Your task to perform on an android device: turn off data saver in the chrome app Image 0: 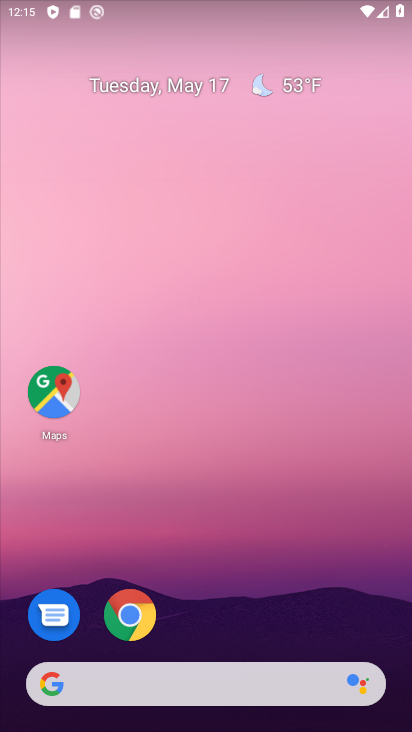
Step 0: click (128, 607)
Your task to perform on an android device: turn off data saver in the chrome app Image 1: 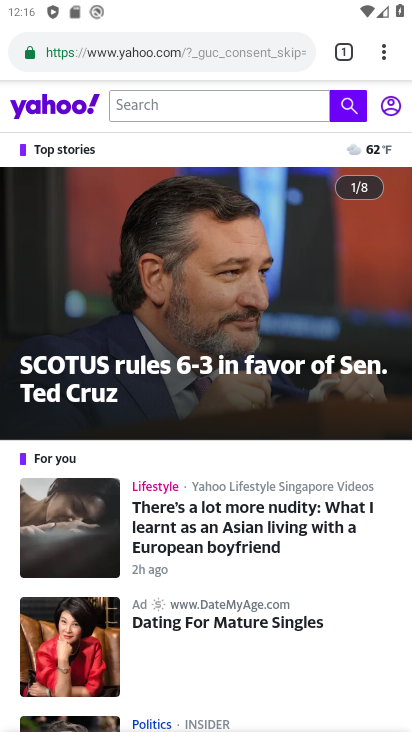
Step 1: click (374, 51)
Your task to perform on an android device: turn off data saver in the chrome app Image 2: 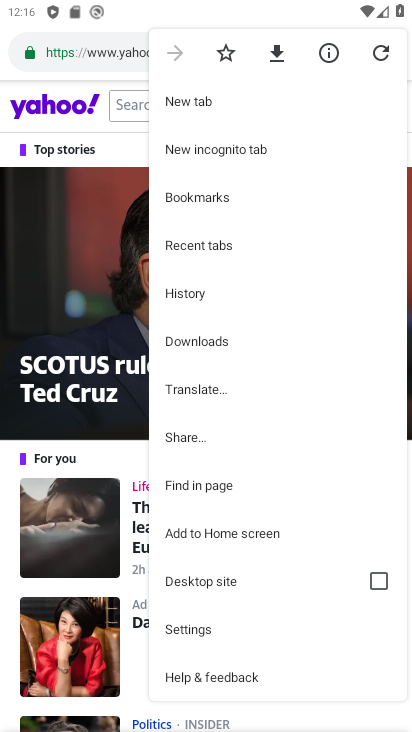
Step 2: click (204, 617)
Your task to perform on an android device: turn off data saver in the chrome app Image 3: 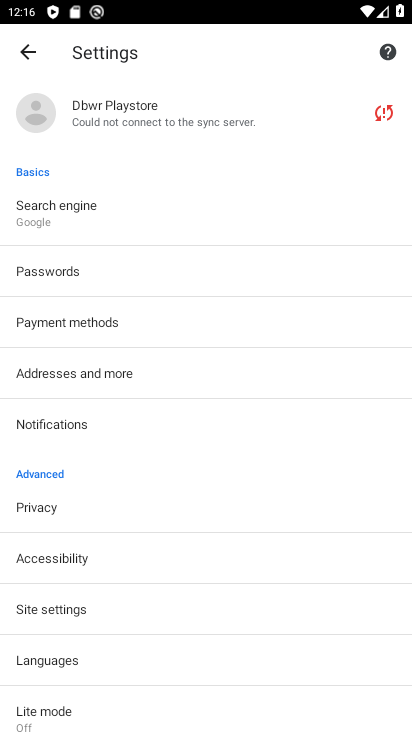
Step 3: click (119, 698)
Your task to perform on an android device: turn off data saver in the chrome app Image 4: 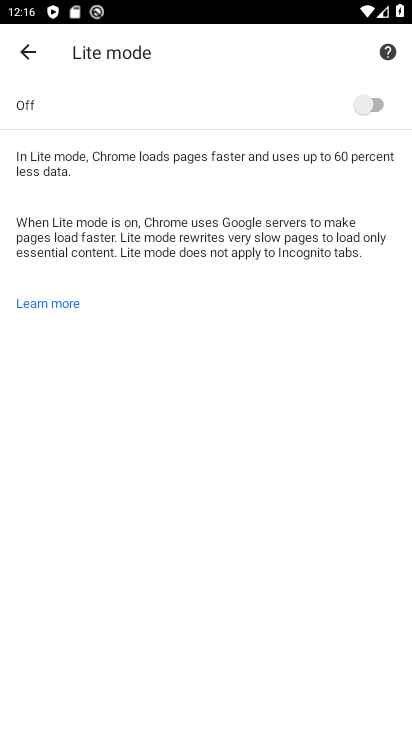
Step 4: click (355, 97)
Your task to perform on an android device: turn off data saver in the chrome app Image 5: 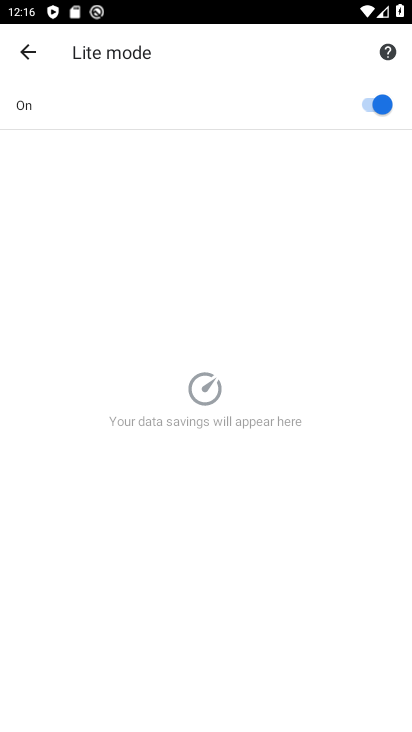
Step 5: task complete